Your task to perform on an android device: move an email to a new category in the gmail app Image 0: 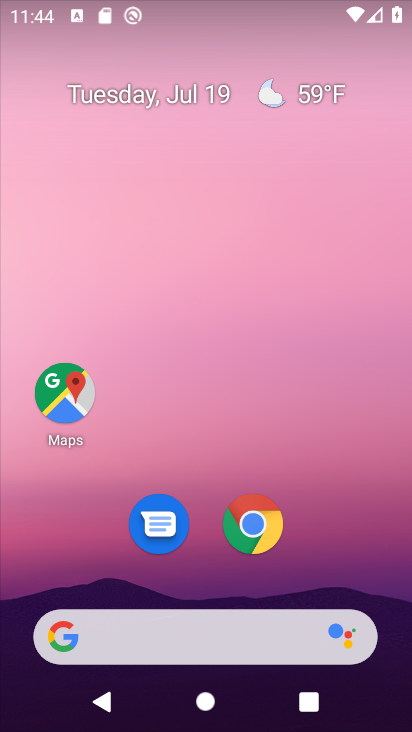
Step 0: drag from (335, 518) to (344, 62)
Your task to perform on an android device: move an email to a new category in the gmail app Image 1: 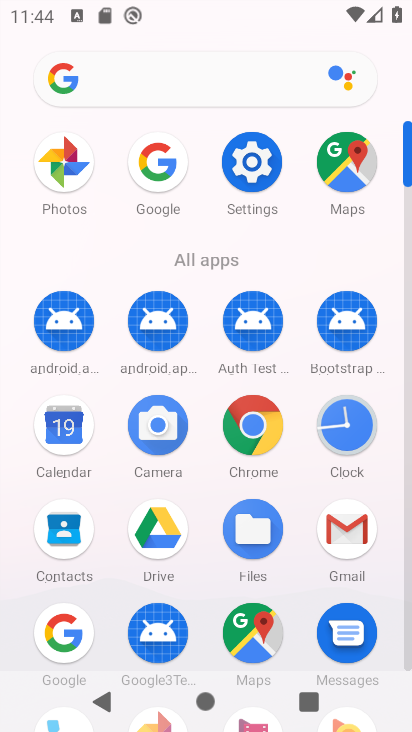
Step 1: click (340, 521)
Your task to perform on an android device: move an email to a new category in the gmail app Image 2: 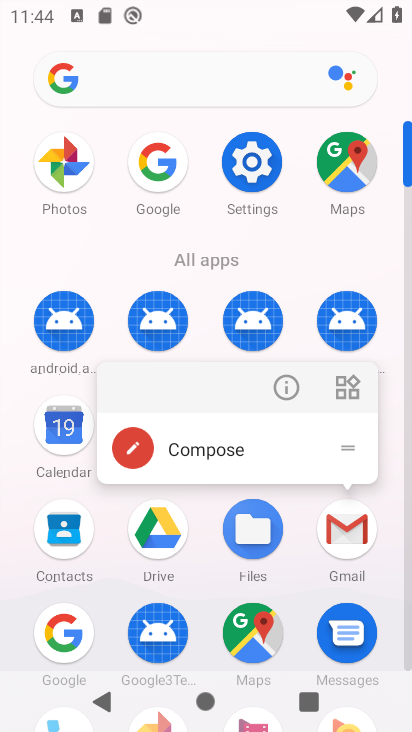
Step 2: click (357, 536)
Your task to perform on an android device: move an email to a new category in the gmail app Image 3: 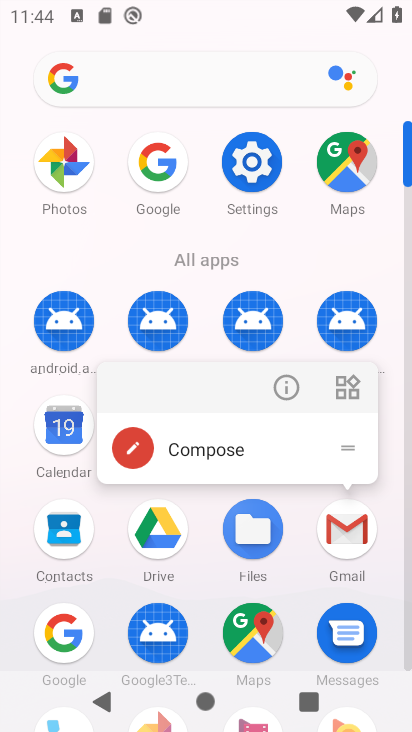
Step 3: click (352, 525)
Your task to perform on an android device: move an email to a new category in the gmail app Image 4: 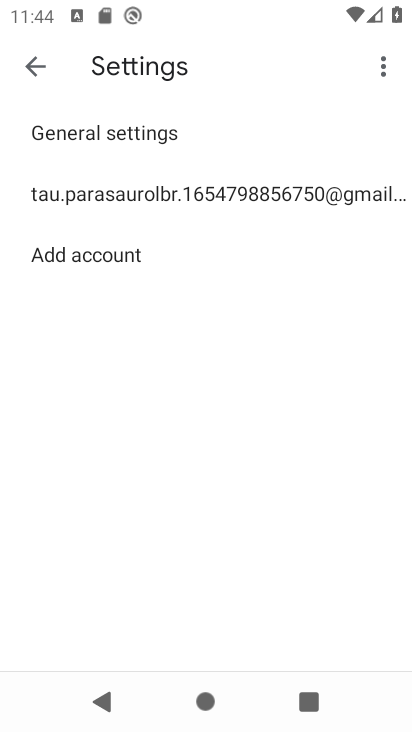
Step 4: click (35, 49)
Your task to perform on an android device: move an email to a new category in the gmail app Image 5: 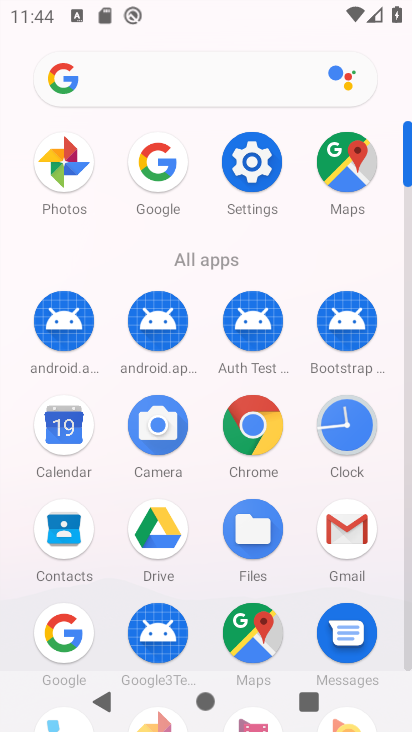
Step 5: click (357, 533)
Your task to perform on an android device: move an email to a new category in the gmail app Image 6: 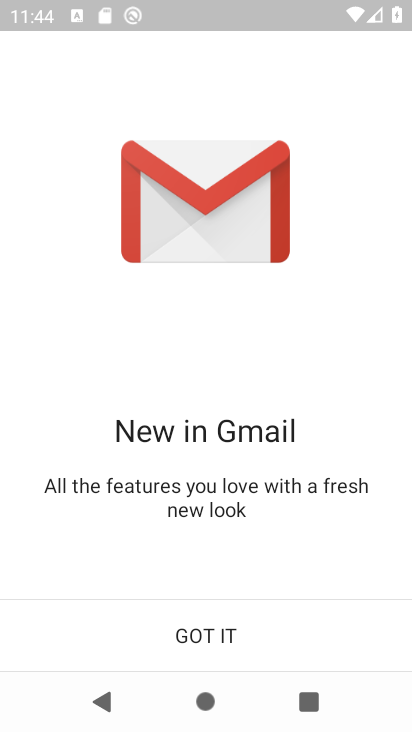
Step 6: click (292, 638)
Your task to perform on an android device: move an email to a new category in the gmail app Image 7: 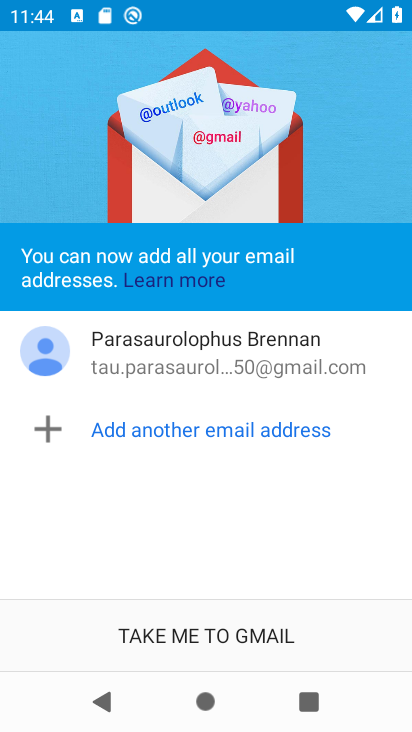
Step 7: click (292, 634)
Your task to perform on an android device: move an email to a new category in the gmail app Image 8: 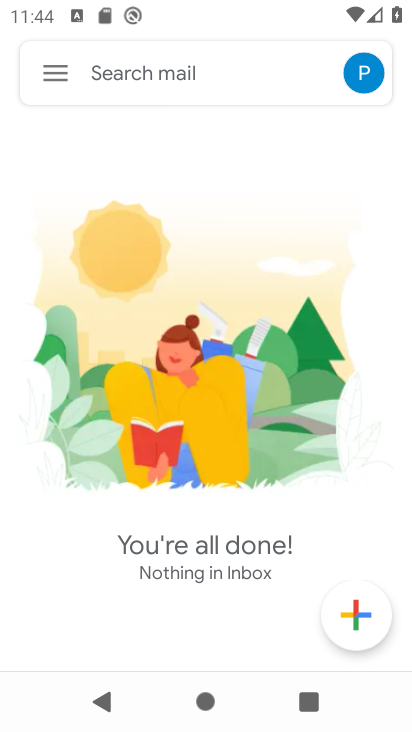
Step 8: click (63, 68)
Your task to perform on an android device: move an email to a new category in the gmail app Image 9: 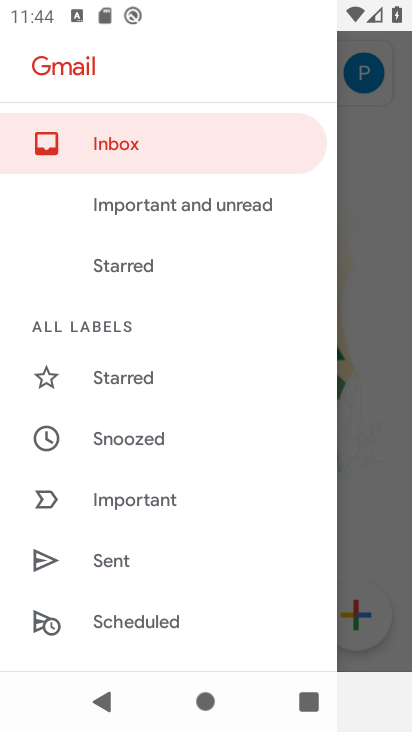
Step 9: drag from (157, 524) to (196, 203)
Your task to perform on an android device: move an email to a new category in the gmail app Image 10: 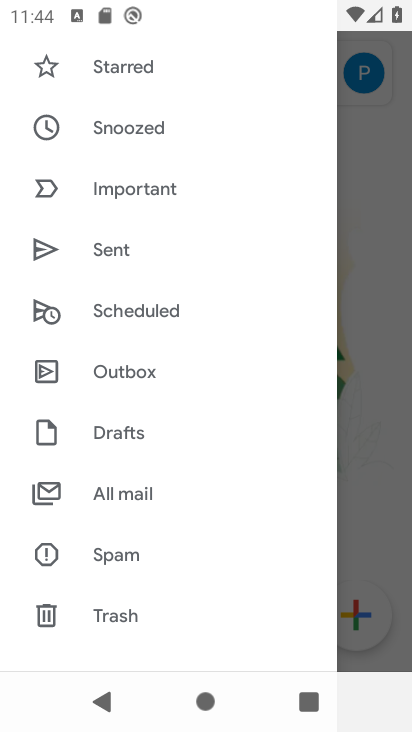
Step 10: click (140, 492)
Your task to perform on an android device: move an email to a new category in the gmail app Image 11: 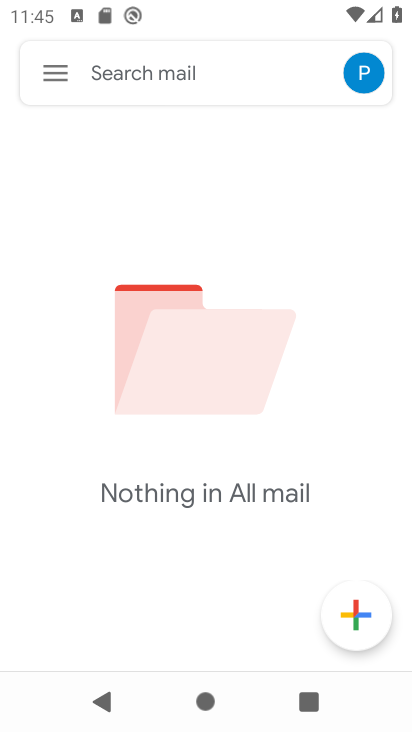
Step 11: task complete